Your task to perform on an android device: snooze an email in the gmail app Image 0: 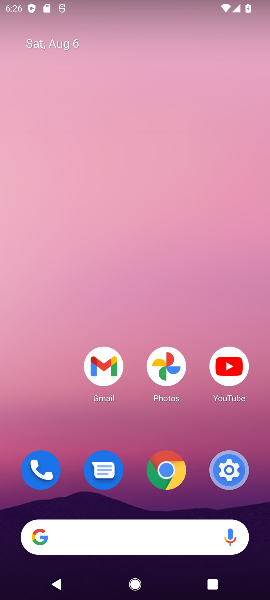
Step 0: press home button
Your task to perform on an android device: snooze an email in the gmail app Image 1: 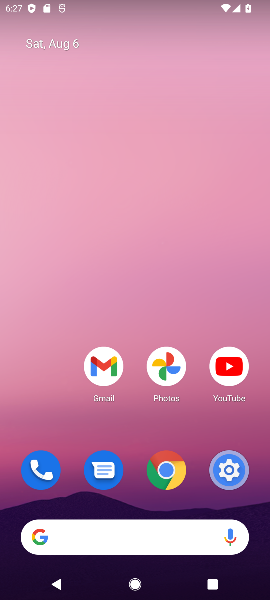
Step 1: drag from (141, 384) to (0, 519)
Your task to perform on an android device: snooze an email in the gmail app Image 2: 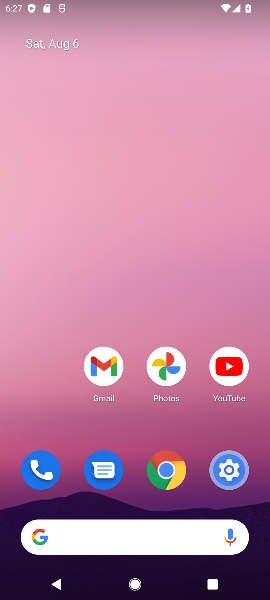
Step 2: click (111, 378)
Your task to perform on an android device: snooze an email in the gmail app Image 3: 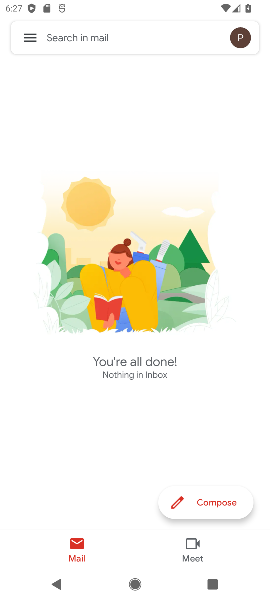
Step 3: task complete